Your task to perform on an android device: Check the news Image 0: 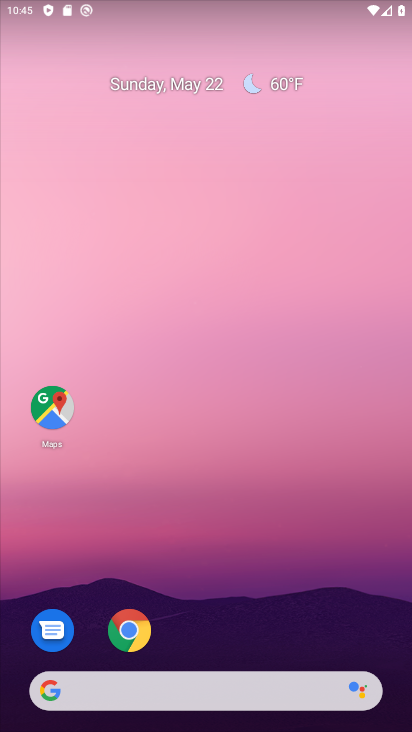
Step 0: drag from (272, 608) to (204, 69)
Your task to perform on an android device: Check the news Image 1: 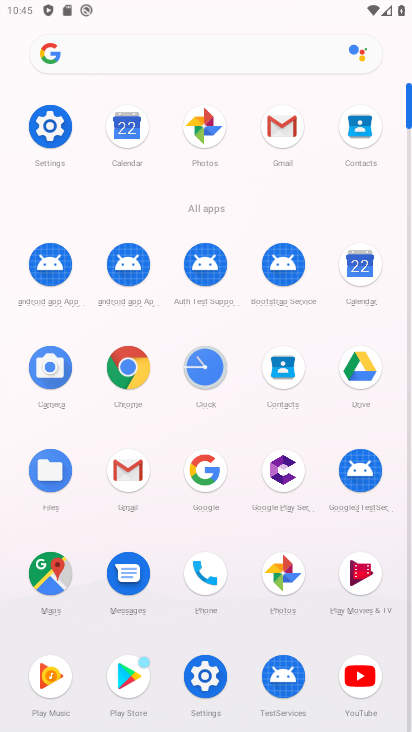
Step 1: click (202, 467)
Your task to perform on an android device: Check the news Image 2: 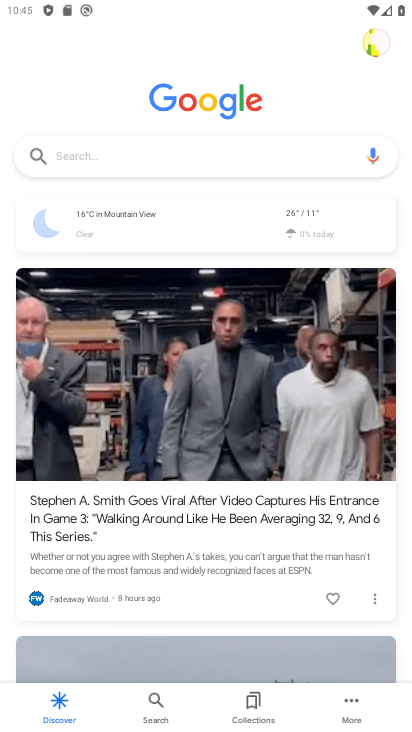
Step 2: click (141, 159)
Your task to perform on an android device: Check the news Image 3: 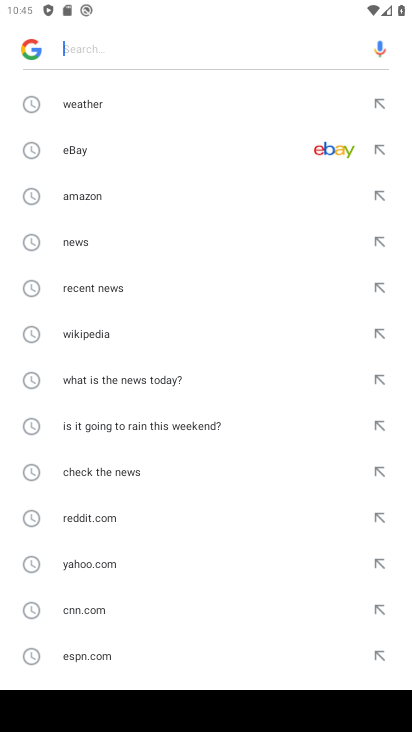
Step 3: click (82, 245)
Your task to perform on an android device: Check the news Image 4: 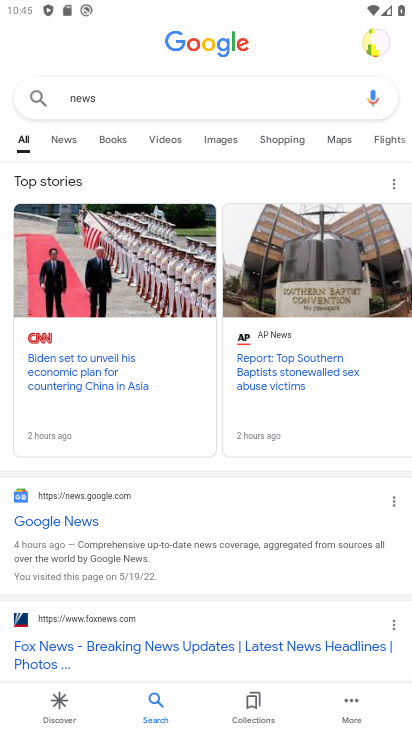
Step 4: task complete